Your task to perform on an android device: turn off data saver in the chrome app Image 0: 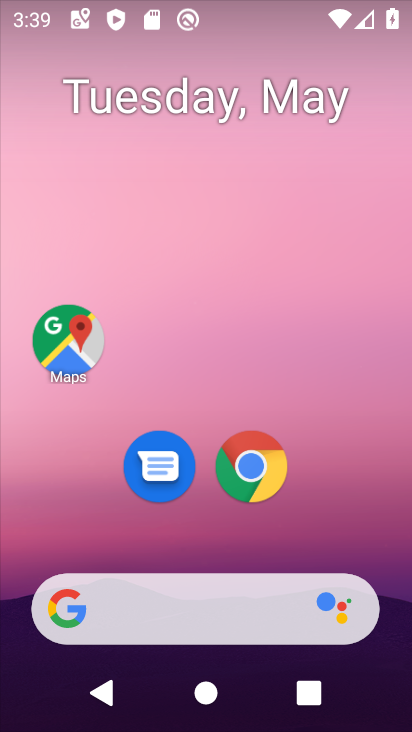
Step 0: click (235, 483)
Your task to perform on an android device: turn off data saver in the chrome app Image 1: 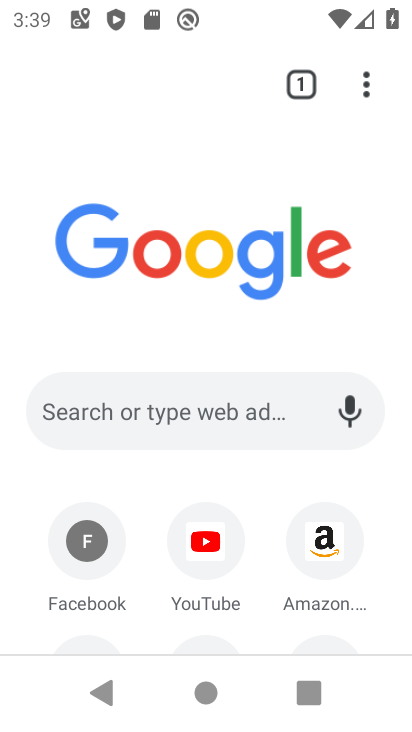
Step 1: click (365, 88)
Your task to perform on an android device: turn off data saver in the chrome app Image 2: 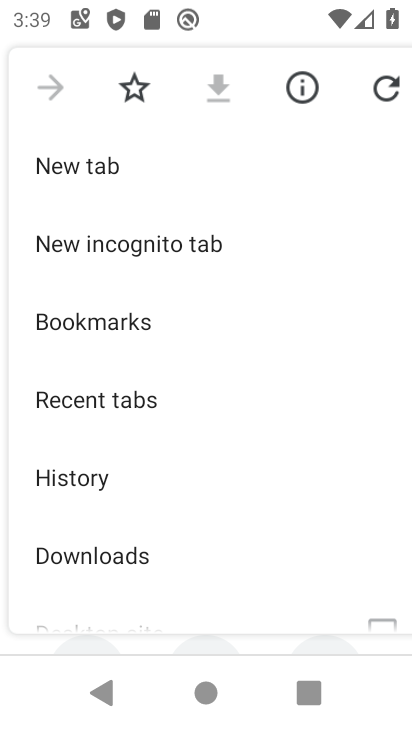
Step 2: drag from (110, 586) to (183, 167)
Your task to perform on an android device: turn off data saver in the chrome app Image 3: 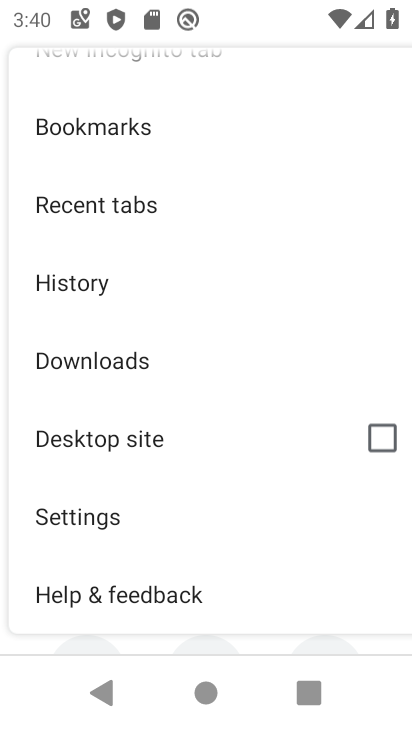
Step 3: click (105, 524)
Your task to perform on an android device: turn off data saver in the chrome app Image 4: 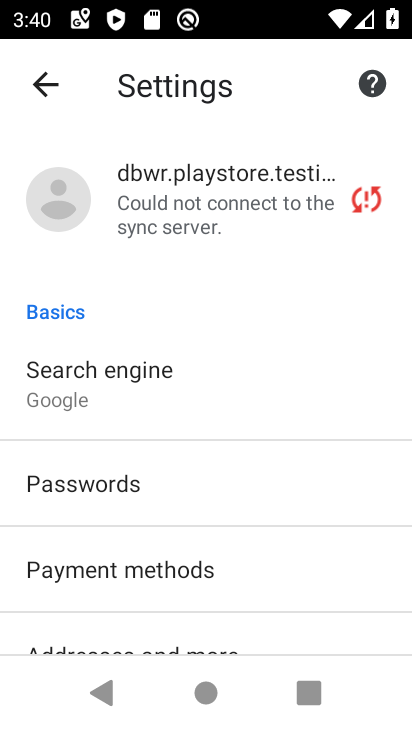
Step 4: drag from (154, 606) to (204, 199)
Your task to perform on an android device: turn off data saver in the chrome app Image 5: 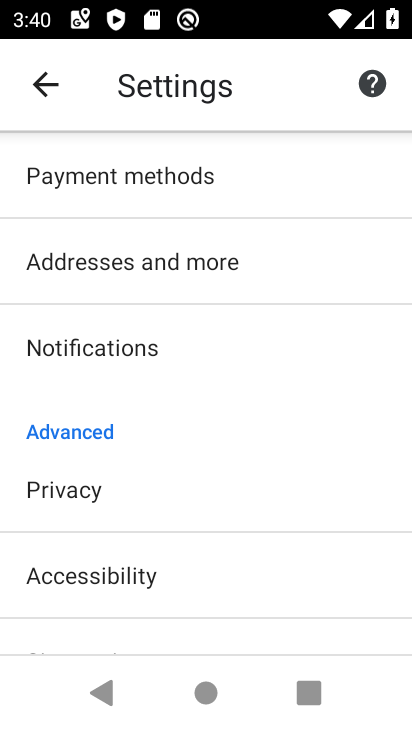
Step 5: drag from (204, 610) to (234, 246)
Your task to perform on an android device: turn off data saver in the chrome app Image 6: 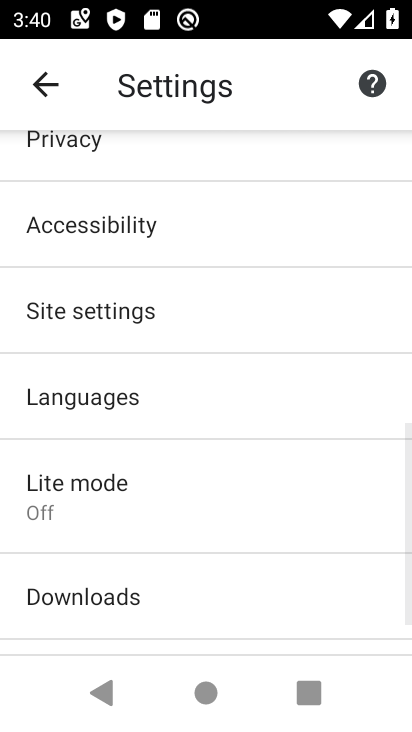
Step 6: click (85, 486)
Your task to perform on an android device: turn off data saver in the chrome app Image 7: 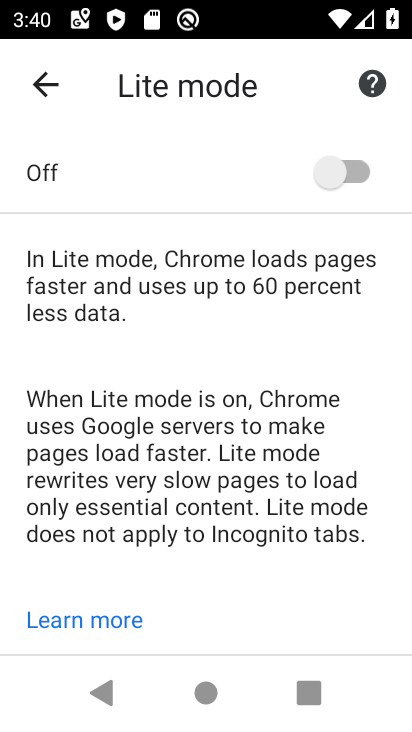
Step 7: task complete